Your task to perform on an android device: Set the phone to "Do not disturb". Image 0: 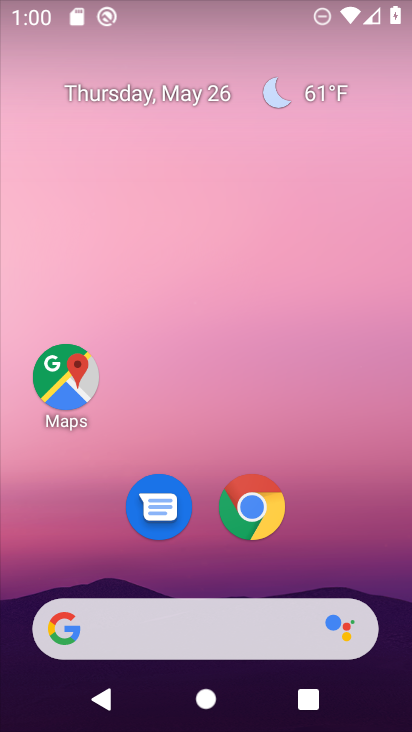
Step 0: drag from (372, 582) to (90, 10)
Your task to perform on an android device: Set the phone to "Do not disturb". Image 1: 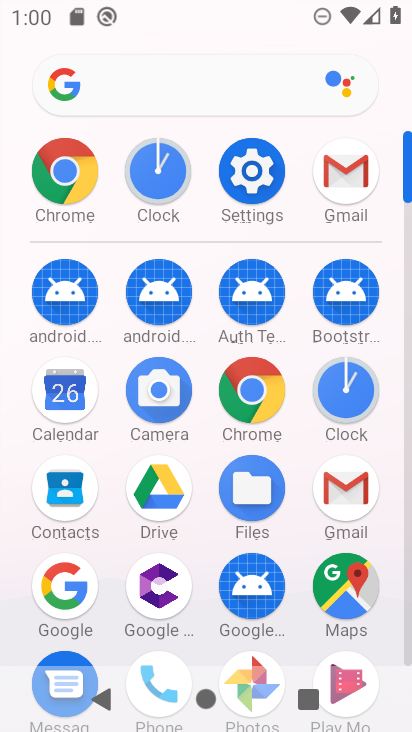
Step 1: click (248, 162)
Your task to perform on an android device: Set the phone to "Do not disturb". Image 2: 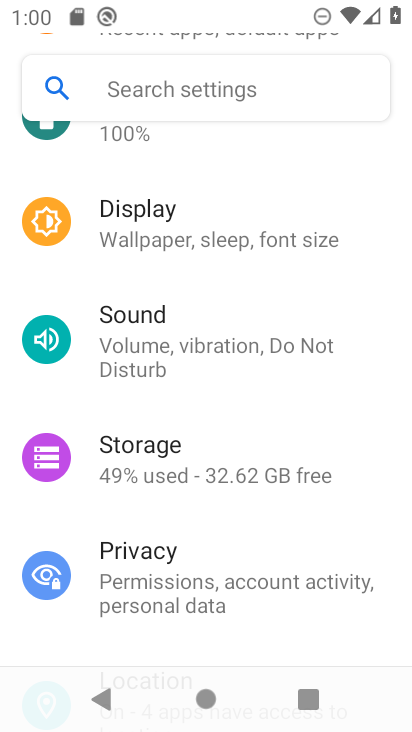
Step 2: drag from (246, 457) to (243, 402)
Your task to perform on an android device: Set the phone to "Do not disturb". Image 3: 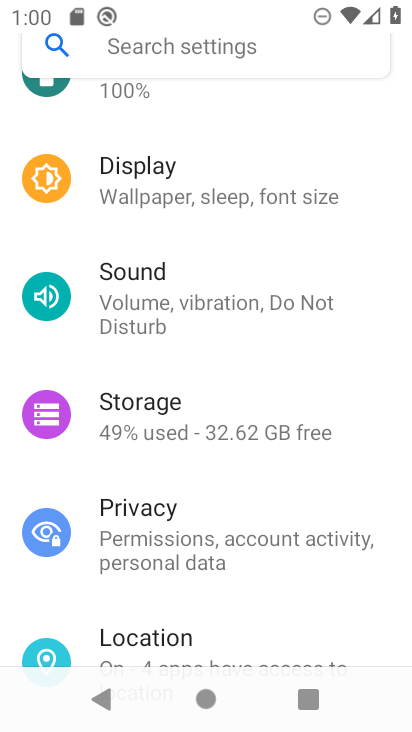
Step 3: click (223, 337)
Your task to perform on an android device: Set the phone to "Do not disturb". Image 4: 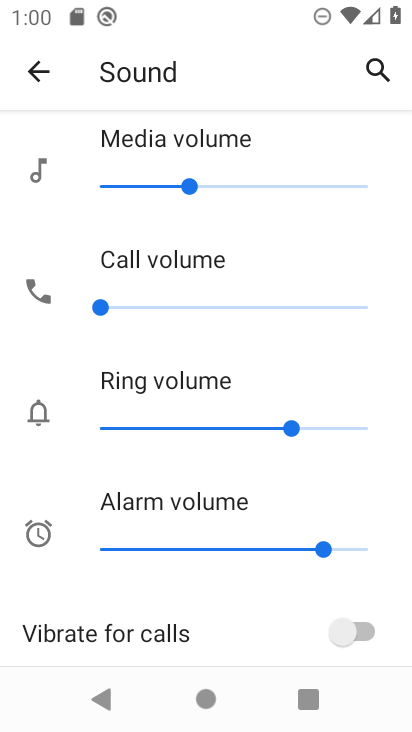
Step 4: drag from (182, 562) to (257, 19)
Your task to perform on an android device: Set the phone to "Do not disturb". Image 5: 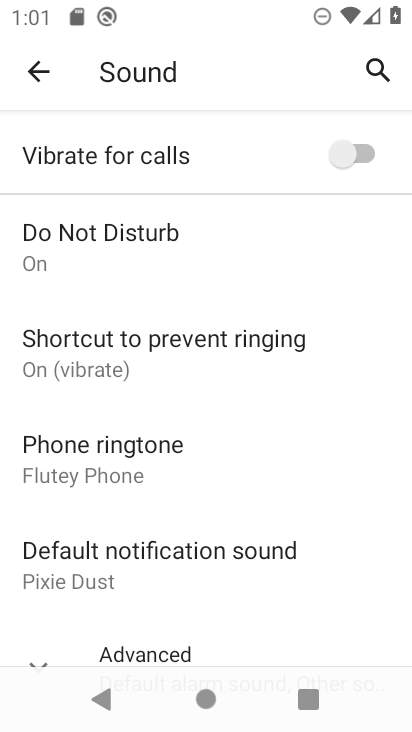
Step 5: click (133, 232)
Your task to perform on an android device: Set the phone to "Do not disturb". Image 6: 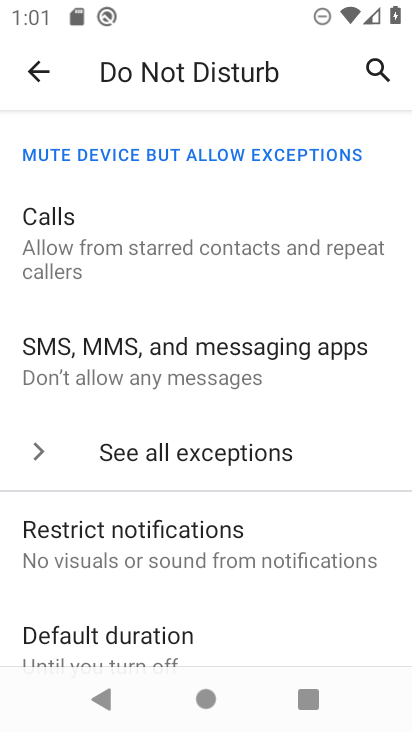
Step 6: task complete